Your task to perform on an android device: star an email in the gmail app Image 0: 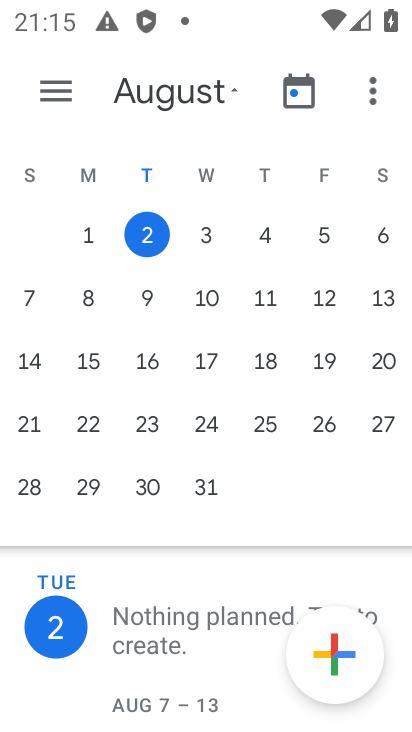
Step 0: press home button
Your task to perform on an android device: star an email in the gmail app Image 1: 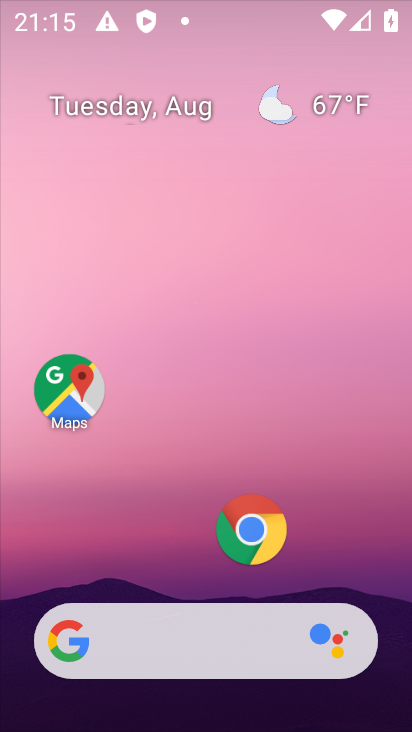
Step 1: press home button
Your task to perform on an android device: star an email in the gmail app Image 2: 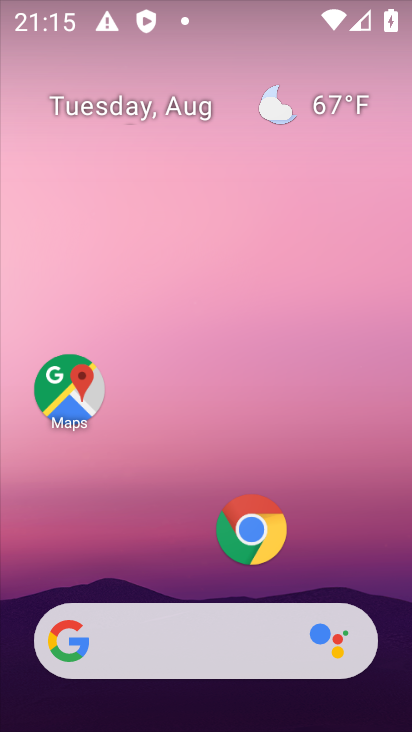
Step 2: drag from (179, 548) to (206, 0)
Your task to perform on an android device: star an email in the gmail app Image 3: 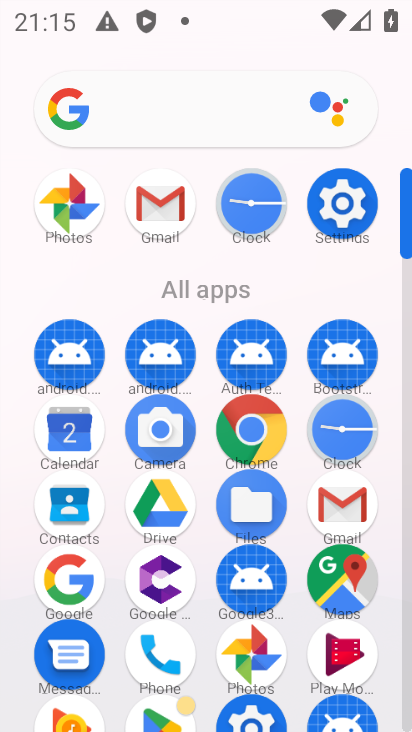
Step 3: click (336, 506)
Your task to perform on an android device: star an email in the gmail app Image 4: 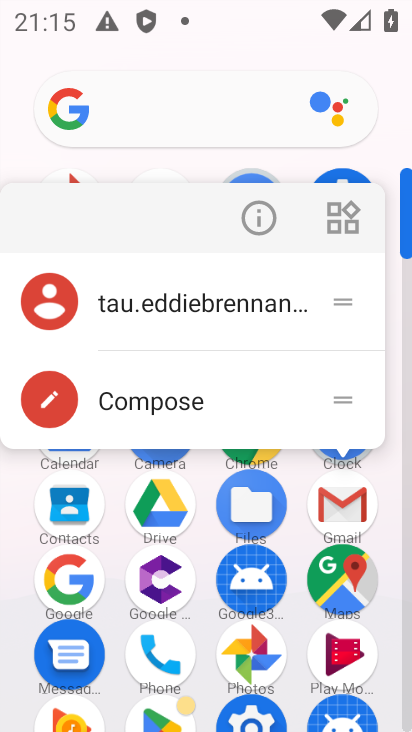
Step 4: click (257, 219)
Your task to perform on an android device: star an email in the gmail app Image 5: 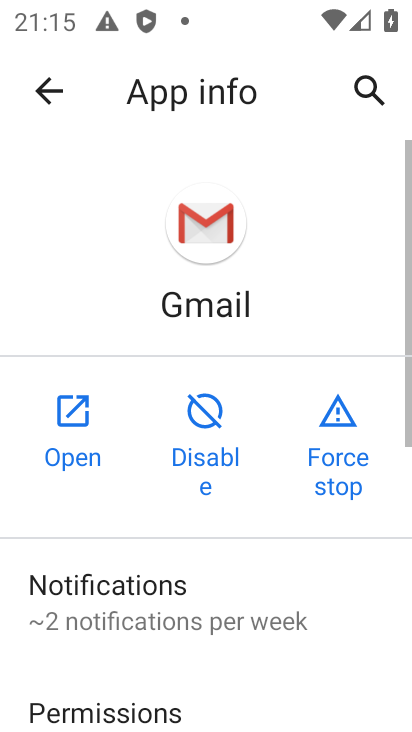
Step 5: click (92, 429)
Your task to perform on an android device: star an email in the gmail app Image 6: 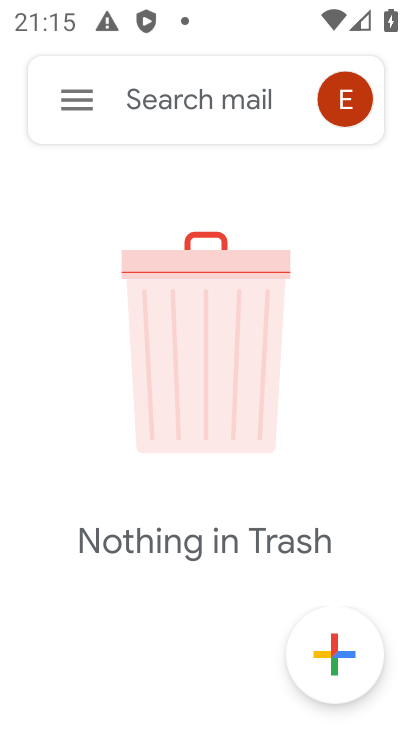
Step 6: click (71, 122)
Your task to perform on an android device: star an email in the gmail app Image 7: 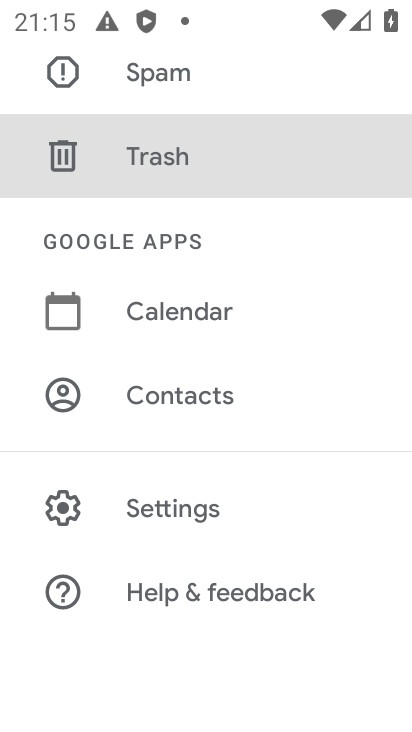
Step 7: drag from (197, 164) to (258, 654)
Your task to perform on an android device: star an email in the gmail app Image 8: 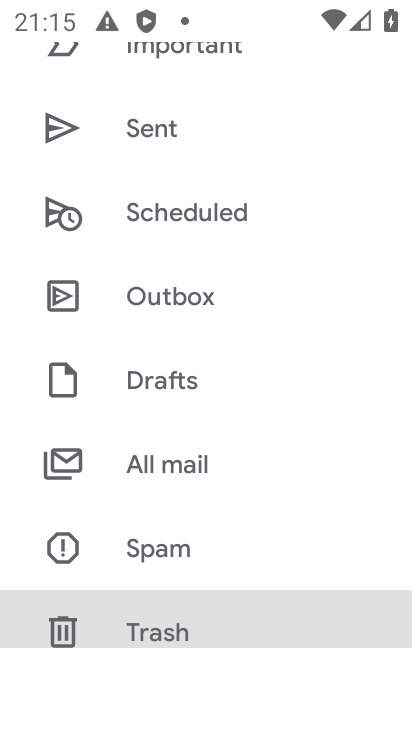
Step 8: drag from (171, 149) to (201, 723)
Your task to perform on an android device: star an email in the gmail app Image 9: 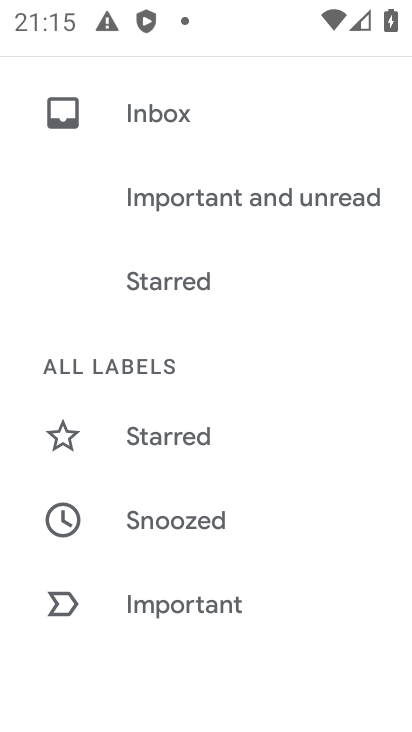
Step 9: click (138, 123)
Your task to perform on an android device: star an email in the gmail app Image 10: 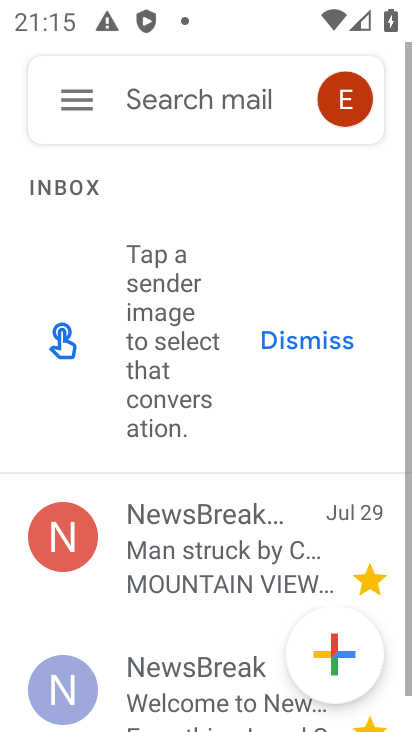
Step 10: drag from (195, 579) to (231, 220)
Your task to perform on an android device: star an email in the gmail app Image 11: 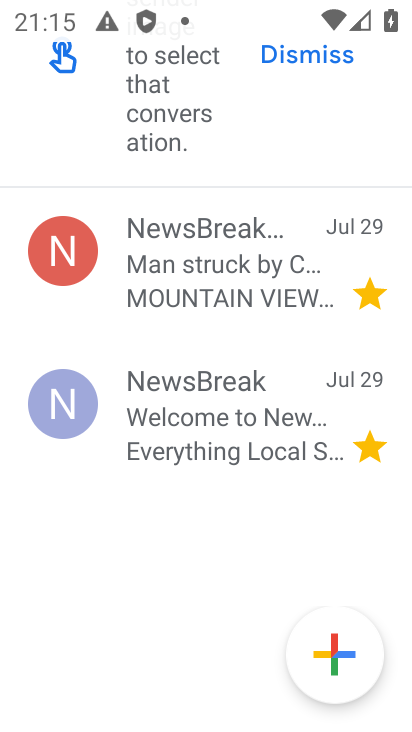
Step 11: click (173, 245)
Your task to perform on an android device: star an email in the gmail app Image 12: 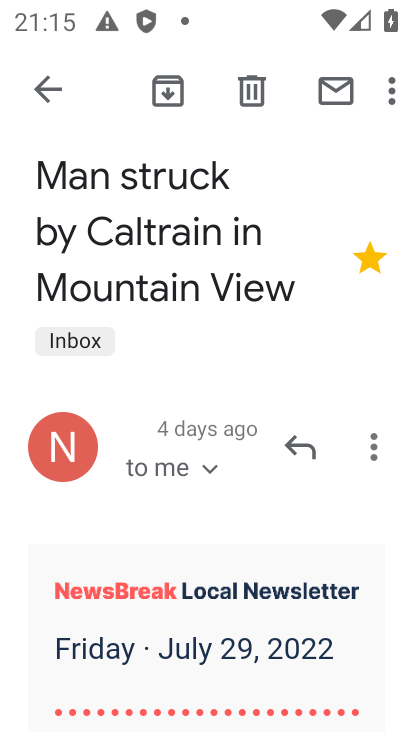
Step 12: click (378, 256)
Your task to perform on an android device: star an email in the gmail app Image 13: 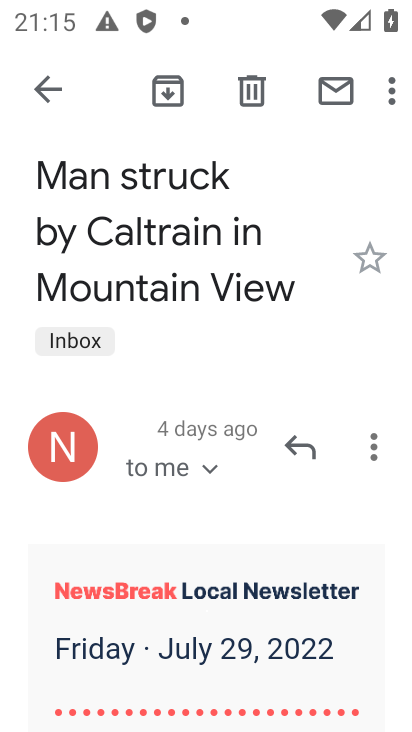
Step 13: task complete